Your task to perform on an android device: Go to Maps Image 0: 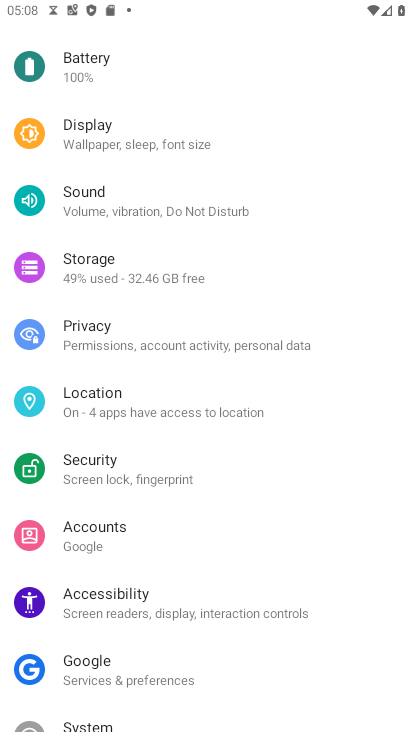
Step 0: press home button
Your task to perform on an android device: Go to Maps Image 1: 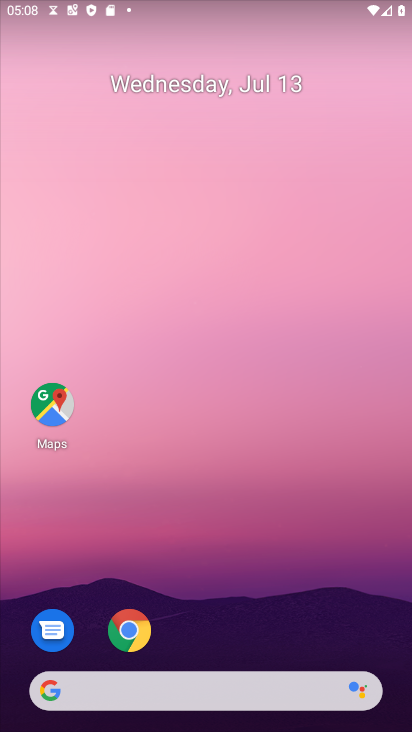
Step 1: drag from (293, 687) to (333, 28)
Your task to perform on an android device: Go to Maps Image 2: 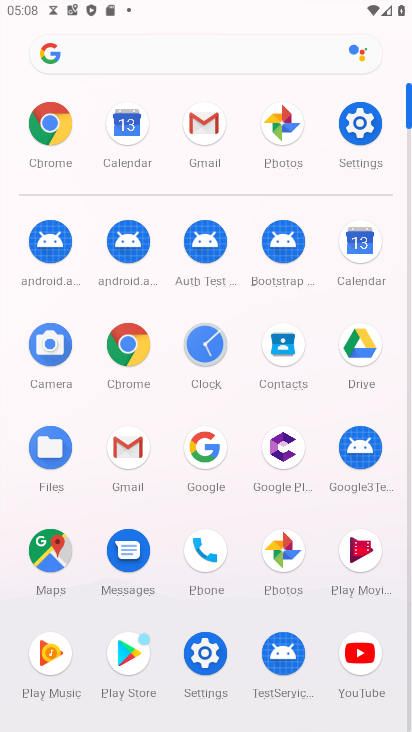
Step 2: click (27, 549)
Your task to perform on an android device: Go to Maps Image 3: 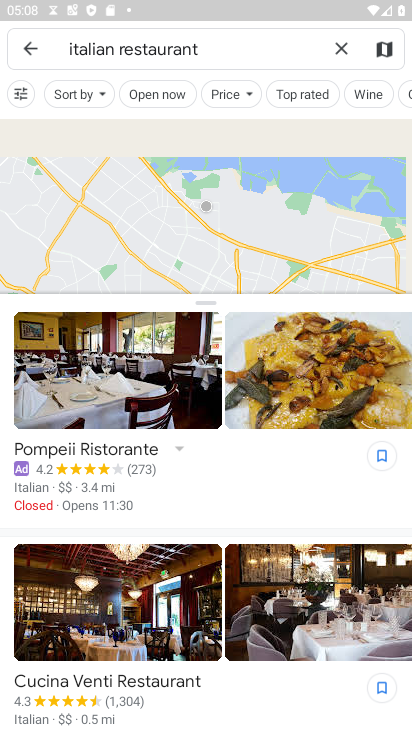
Step 3: task complete